Your task to perform on an android device: delete location history Image 0: 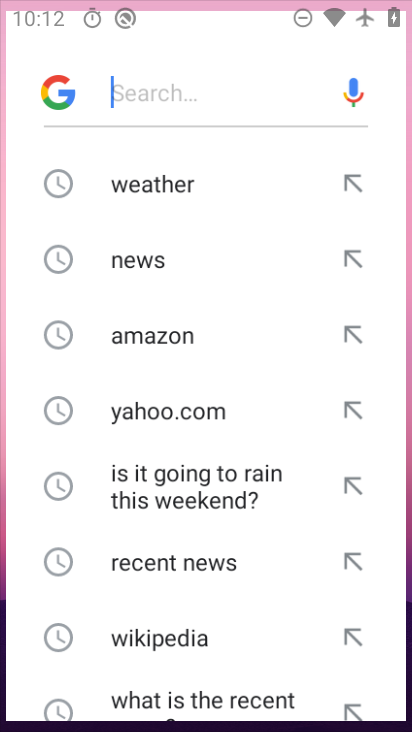
Step 0: press home button
Your task to perform on an android device: delete location history Image 1: 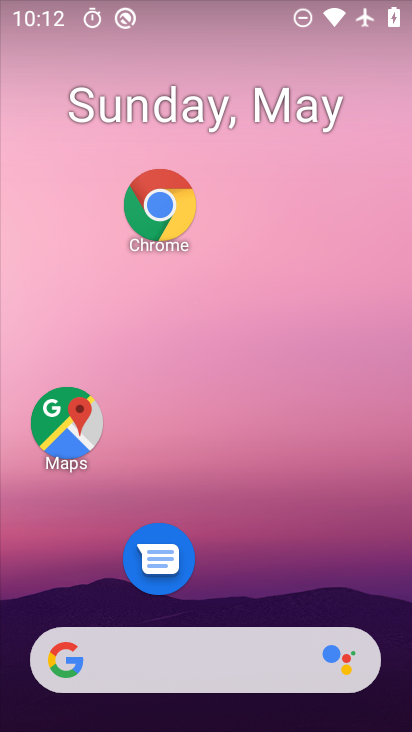
Step 1: click (80, 437)
Your task to perform on an android device: delete location history Image 2: 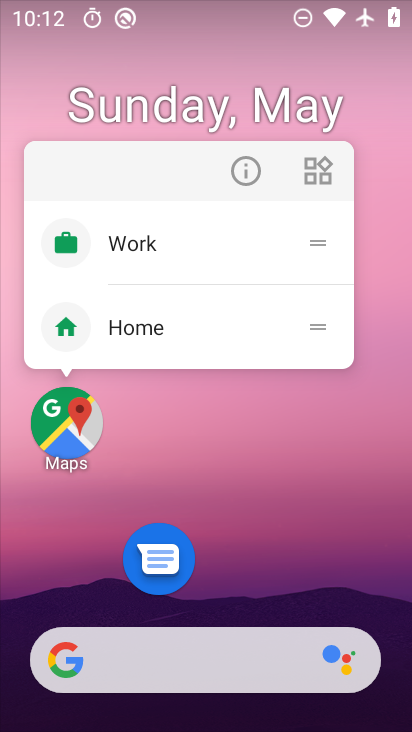
Step 2: click (81, 447)
Your task to perform on an android device: delete location history Image 3: 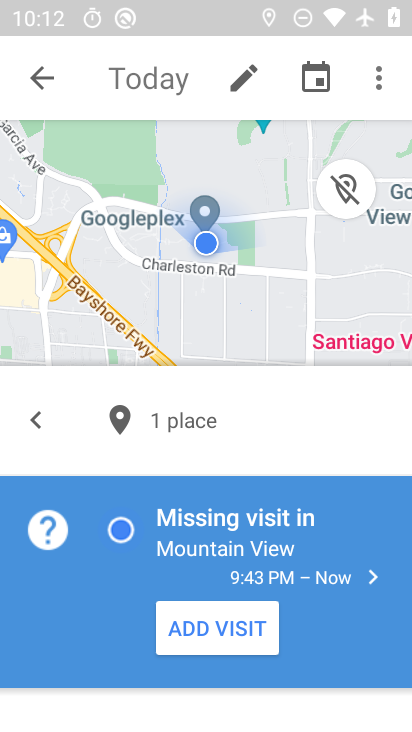
Step 3: click (39, 74)
Your task to perform on an android device: delete location history Image 4: 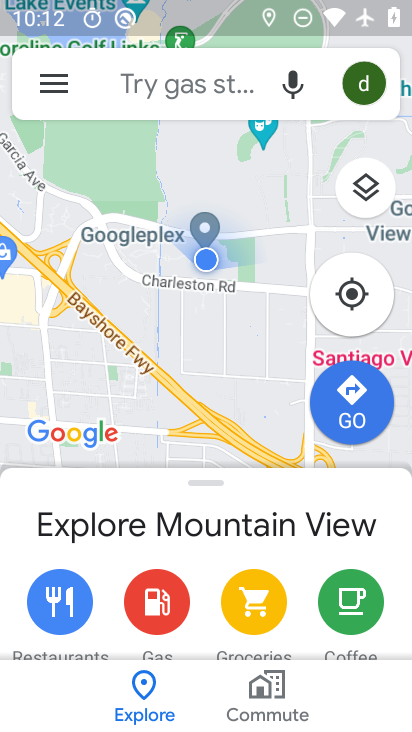
Step 4: click (39, 92)
Your task to perform on an android device: delete location history Image 5: 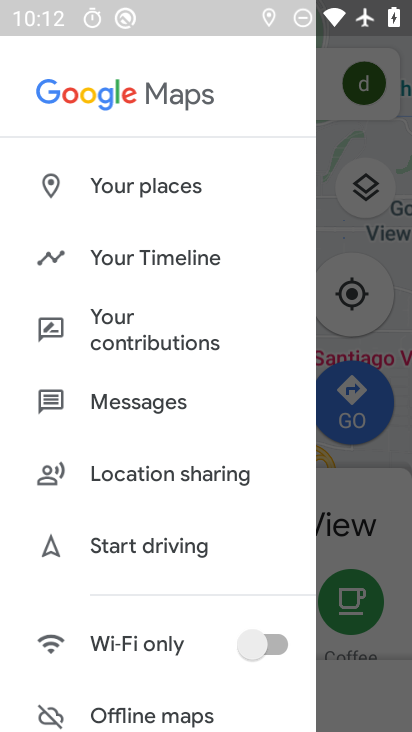
Step 5: click (130, 263)
Your task to perform on an android device: delete location history Image 6: 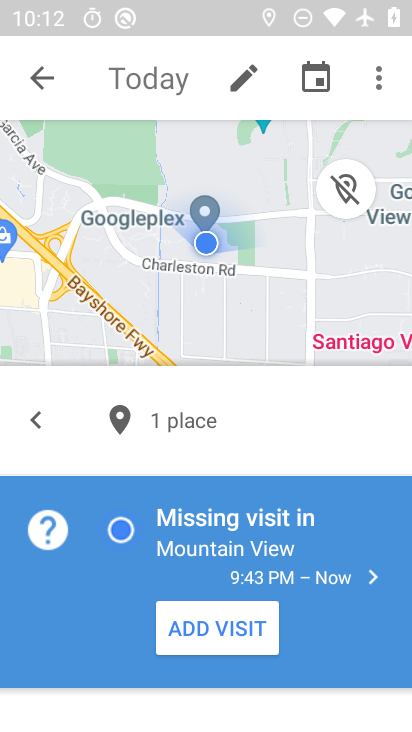
Step 6: click (382, 85)
Your task to perform on an android device: delete location history Image 7: 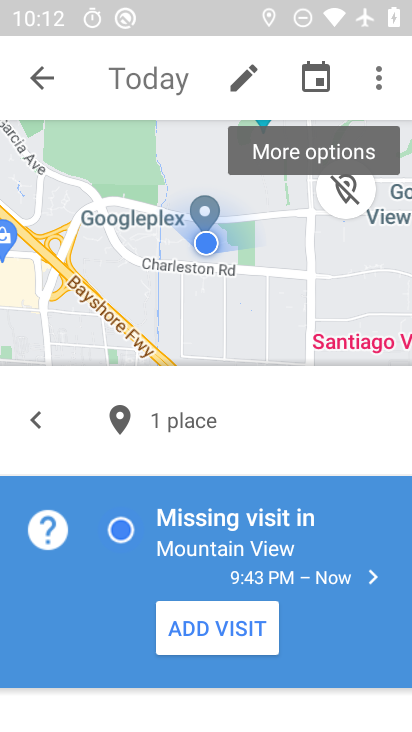
Step 7: click (382, 85)
Your task to perform on an android device: delete location history Image 8: 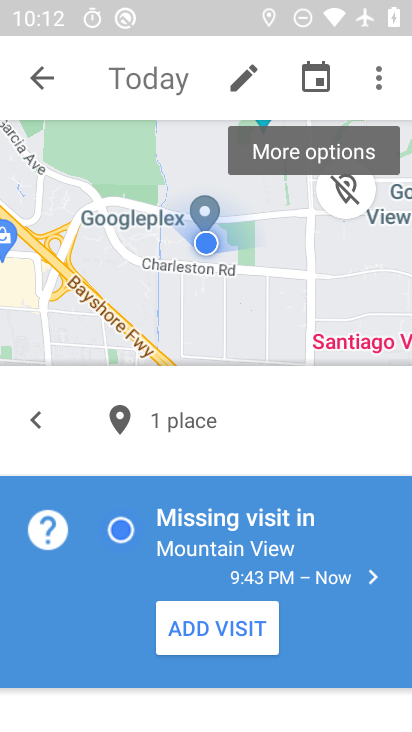
Step 8: click (327, 162)
Your task to perform on an android device: delete location history Image 9: 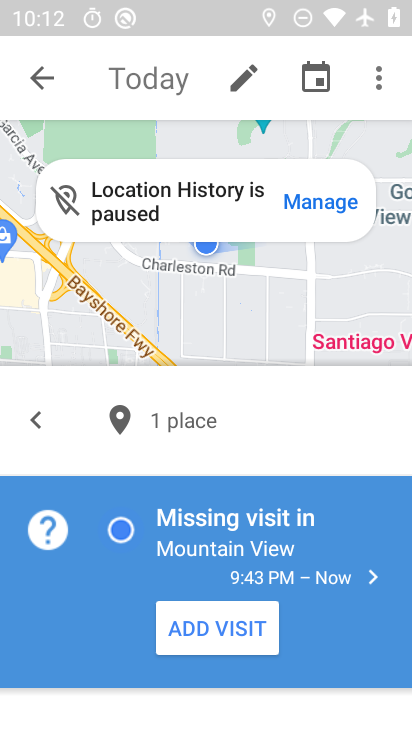
Step 9: click (384, 68)
Your task to perform on an android device: delete location history Image 10: 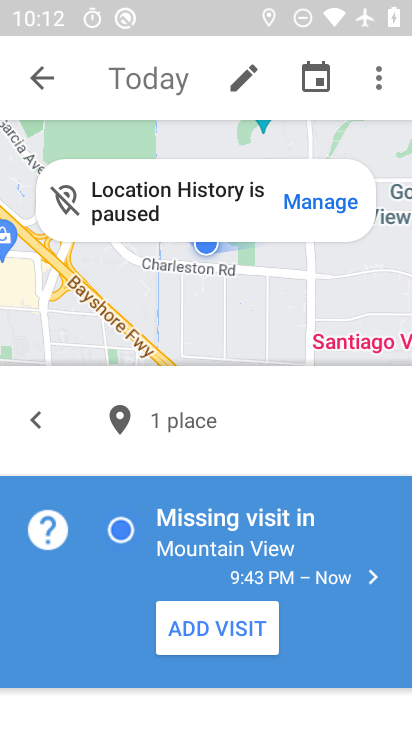
Step 10: drag from (376, 63) to (338, 168)
Your task to perform on an android device: delete location history Image 11: 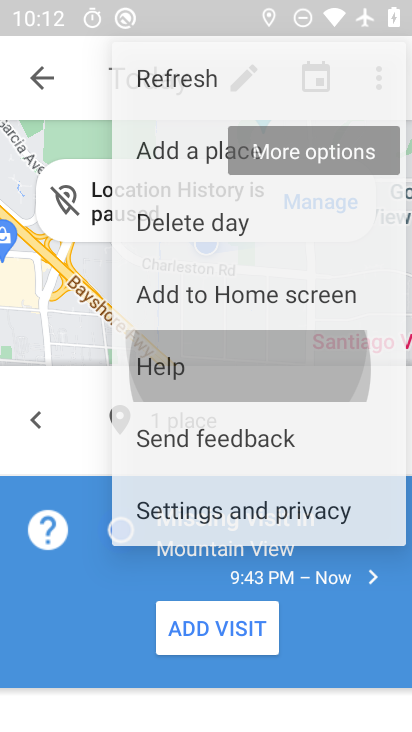
Step 11: click (337, 160)
Your task to perform on an android device: delete location history Image 12: 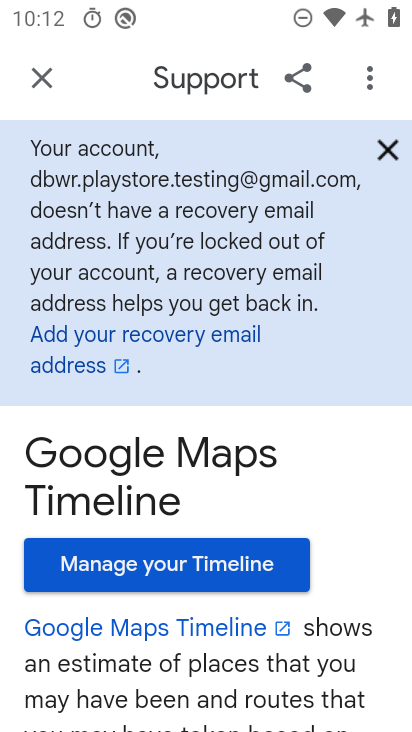
Step 12: drag from (352, 589) to (337, 52)
Your task to perform on an android device: delete location history Image 13: 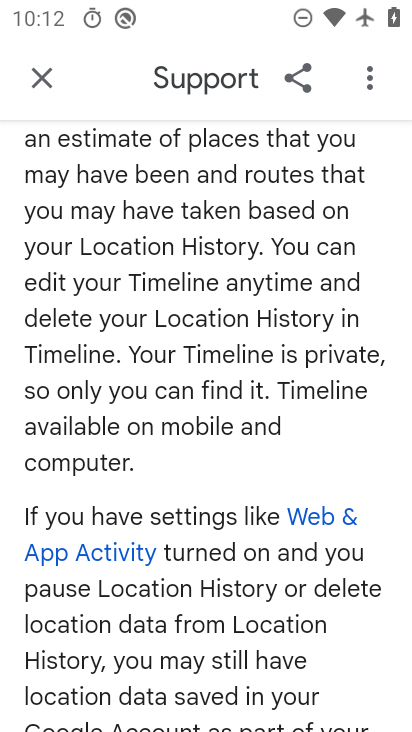
Step 13: drag from (369, 624) to (274, 11)
Your task to perform on an android device: delete location history Image 14: 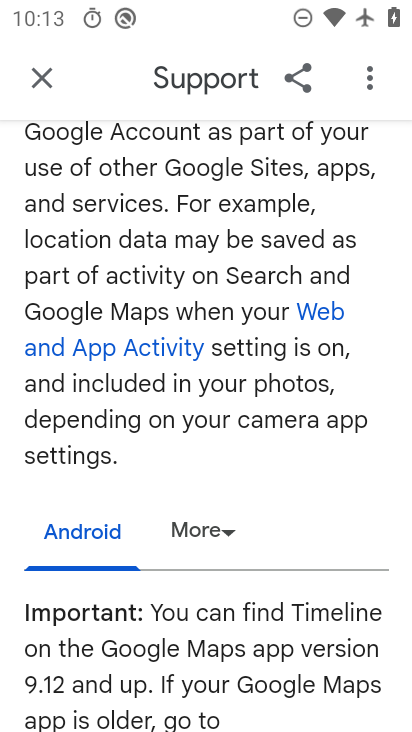
Step 14: click (43, 75)
Your task to perform on an android device: delete location history Image 15: 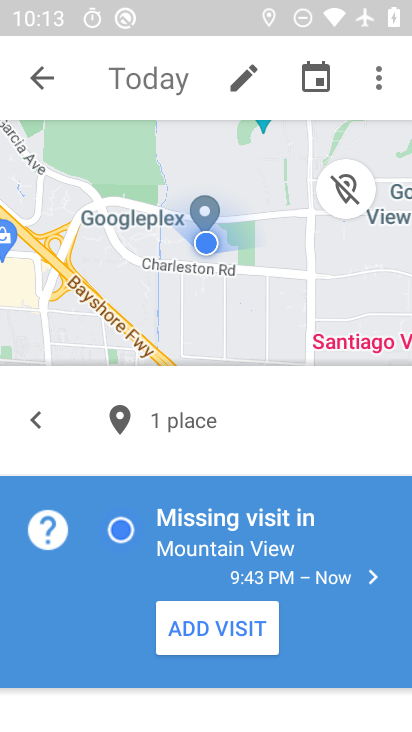
Step 15: click (379, 69)
Your task to perform on an android device: delete location history Image 16: 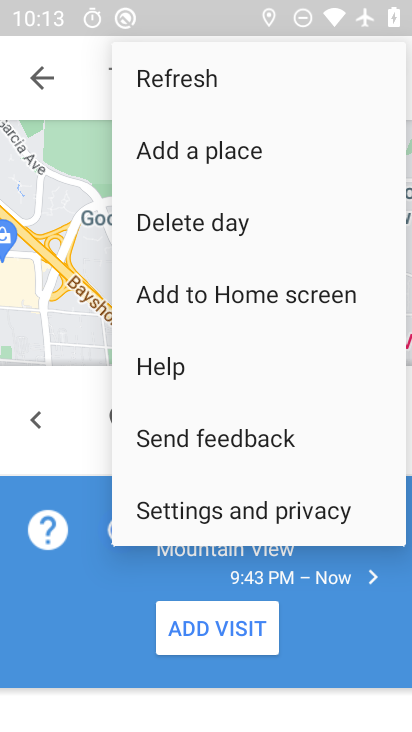
Step 16: click (254, 519)
Your task to perform on an android device: delete location history Image 17: 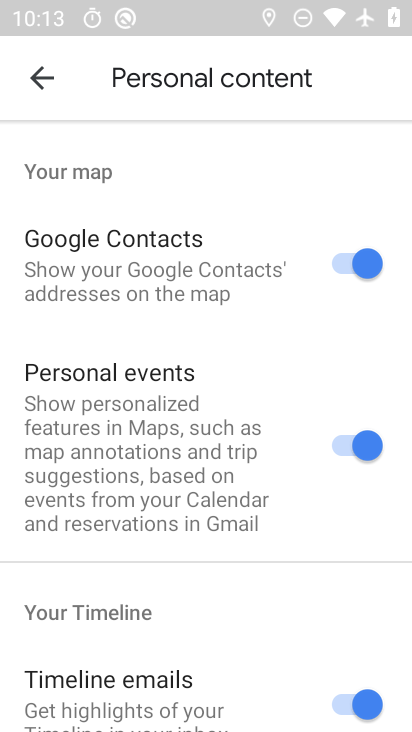
Step 17: drag from (271, 644) to (266, 97)
Your task to perform on an android device: delete location history Image 18: 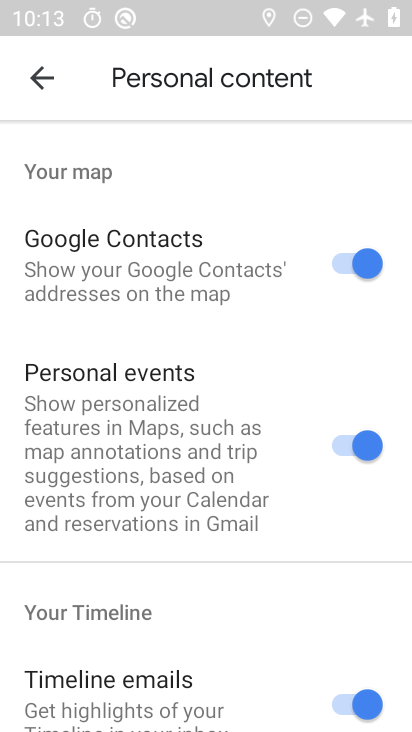
Step 18: drag from (276, 629) to (282, 105)
Your task to perform on an android device: delete location history Image 19: 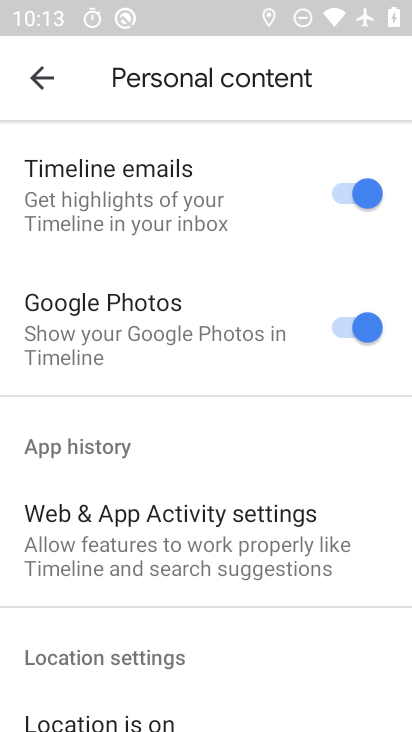
Step 19: drag from (236, 682) to (227, 115)
Your task to perform on an android device: delete location history Image 20: 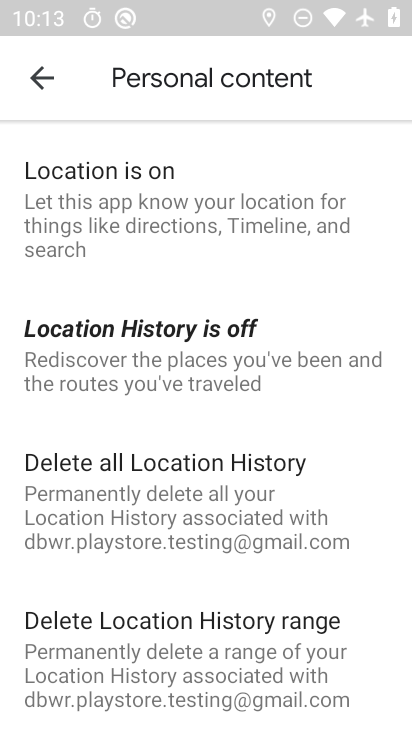
Step 20: click (188, 470)
Your task to perform on an android device: delete location history Image 21: 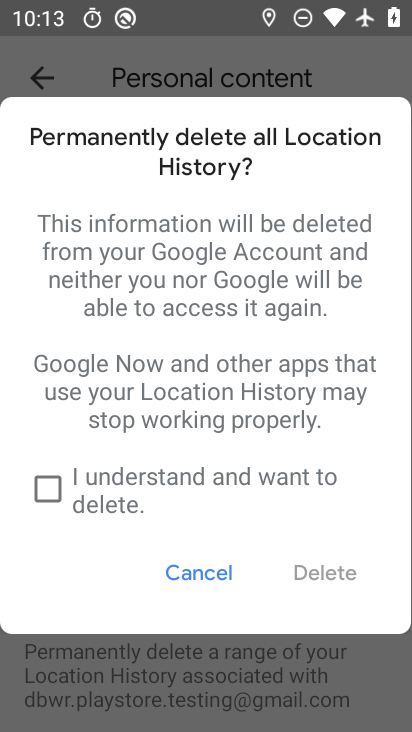
Step 21: click (58, 495)
Your task to perform on an android device: delete location history Image 22: 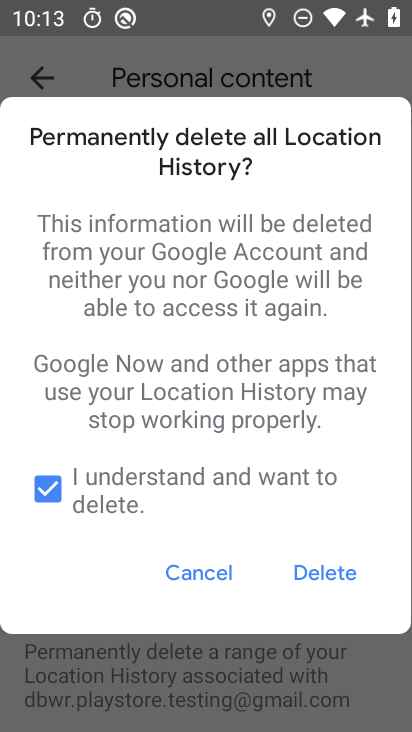
Step 22: click (325, 573)
Your task to perform on an android device: delete location history Image 23: 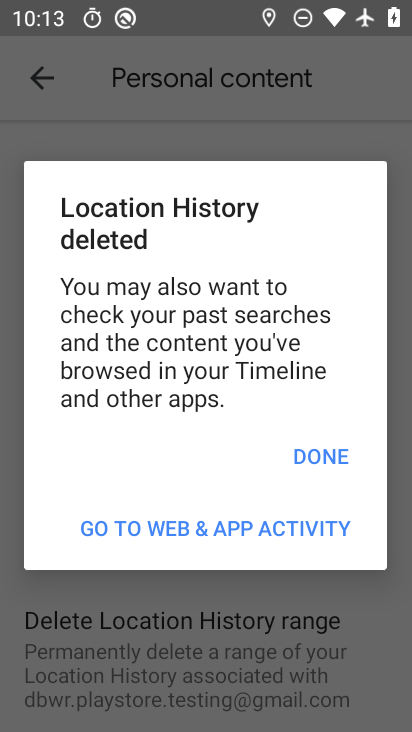
Step 23: click (315, 461)
Your task to perform on an android device: delete location history Image 24: 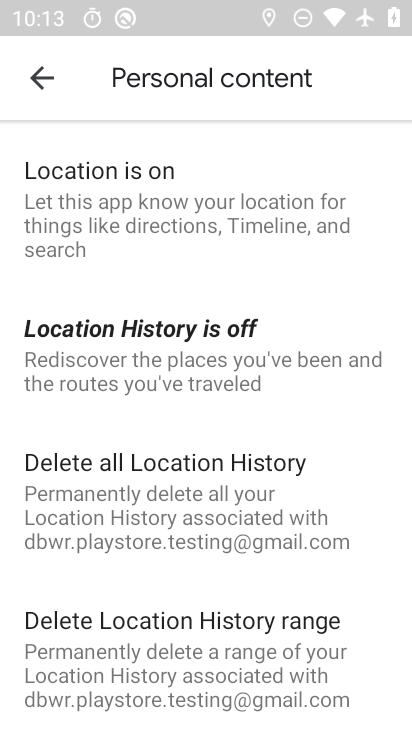
Step 24: task complete